Your task to perform on an android device: add a label to a message in the gmail app Image 0: 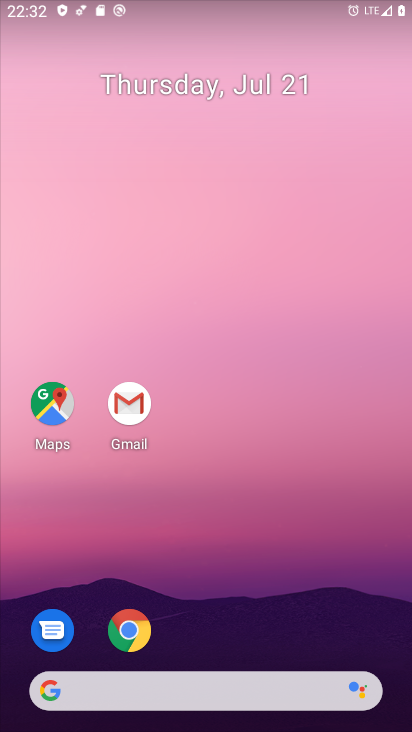
Step 0: drag from (212, 613) to (212, 221)
Your task to perform on an android device: add a label to a message in the gmail app Image 1: 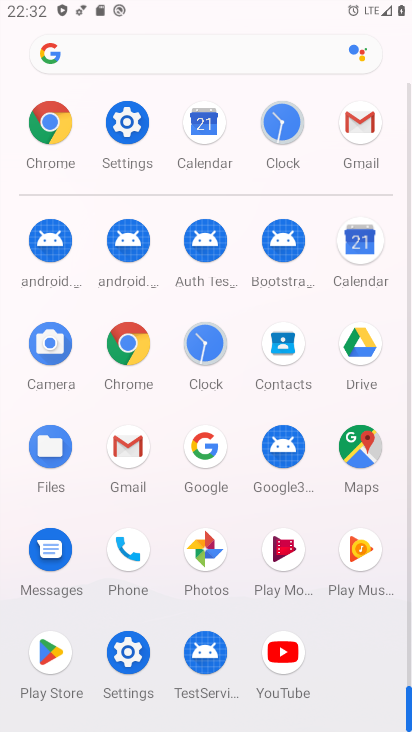
Step 1: click (123, 452)
Your task to perform on an android device: add a label to a message in the gmail app Image 2: 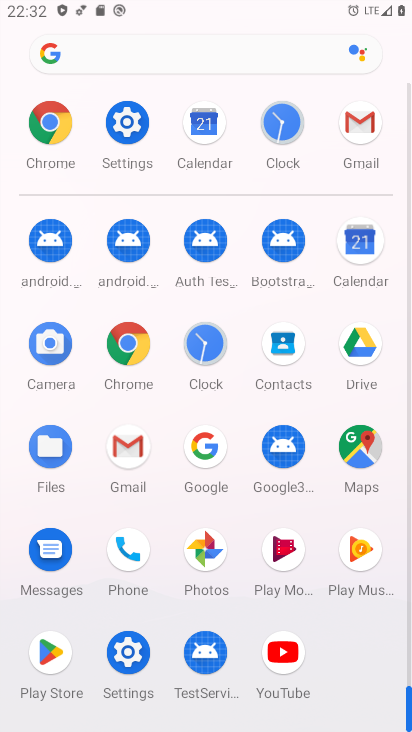
Step 2: click (128, 444)
Your task to perform on an android device: add a label to a message in the gmail app Image 3: 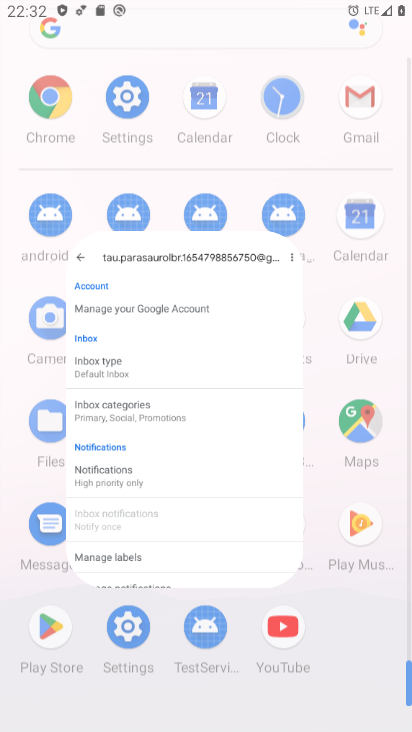
Step 3: click (128, 442)
Your task to perform on an android device: add a label to a message in the gmail app Image 4: 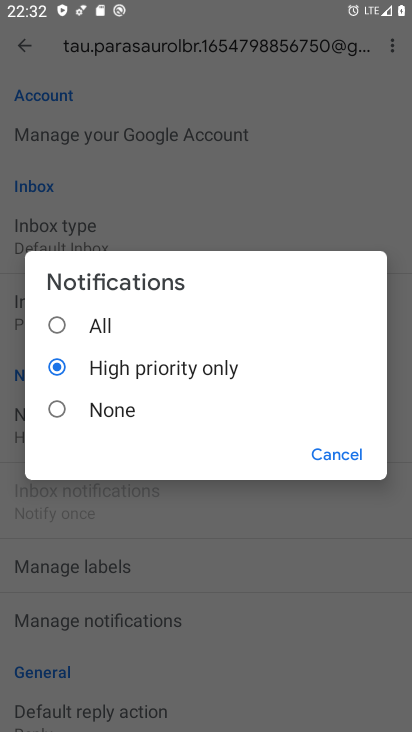
Step 4: click (327, 453)
Your task to perform on an android device: add a label to a message in the gmail app Image 5: 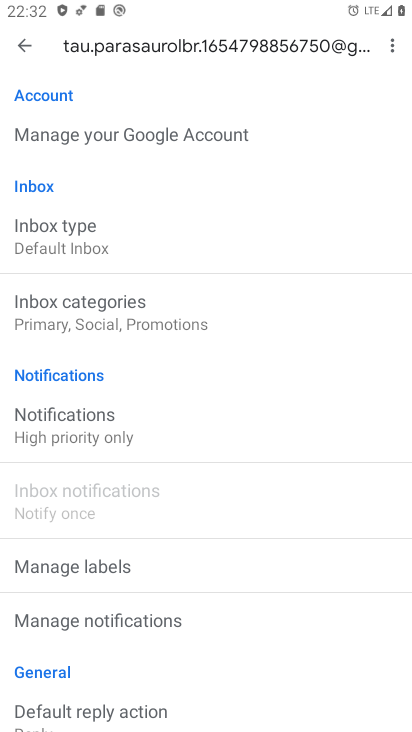
Step 5: click (20, 43)
Your task to perform on an android device: add a label to a message in the gmail app Image 6: 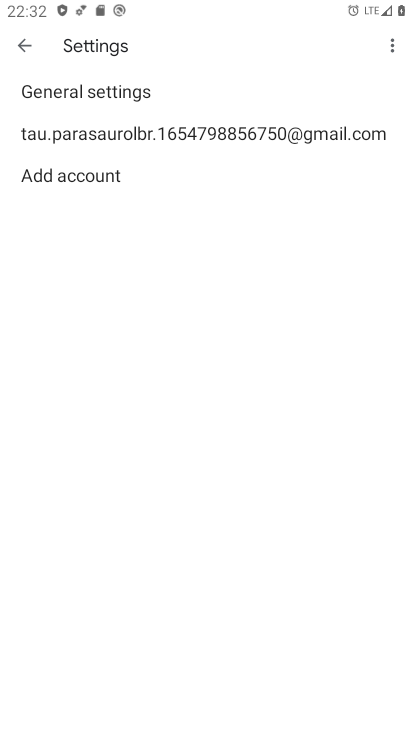
Step 6: click (21, 44)
Your task to perform on an android device: add a label to a message in the gmail app Image 7: 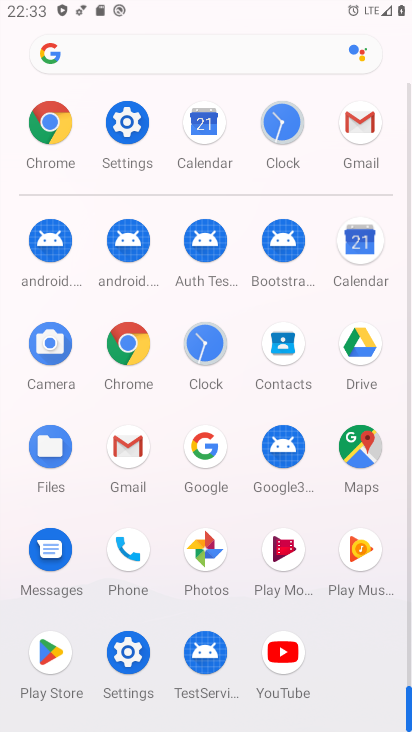
Step 7: click (207, 337)
Your task to perform on an android device: add a label to a message in the gmail app Image 8: 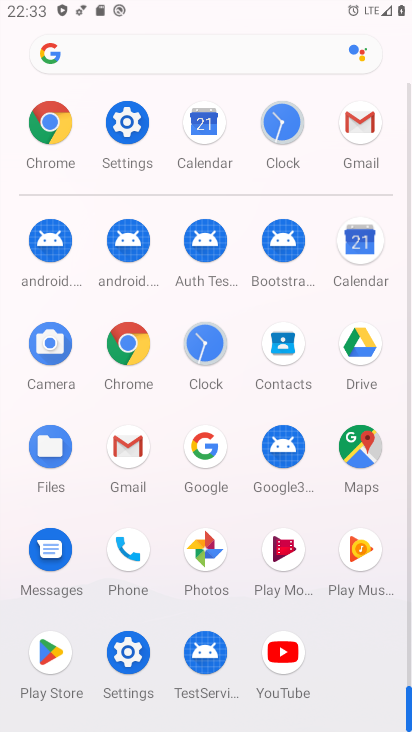
Step 8: click (207, 337)
Your task to perform on an android device: add a label to a message in the gmail app Image 9: 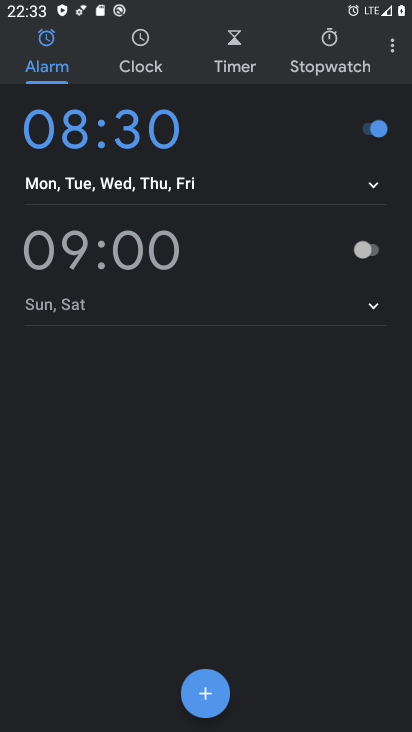
Step 9: press back button
Your task to perform on an android device: add a label to a message in the gmail app Image 10: 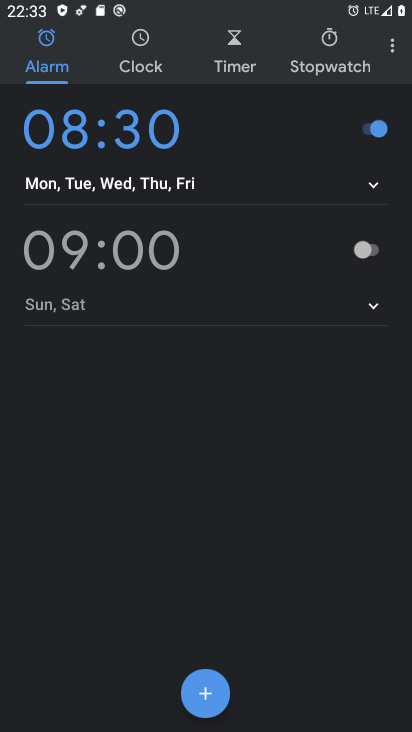
Step 10: press back button
Your task to perform on an android device: add a label to a message in the gmail app Image 11: 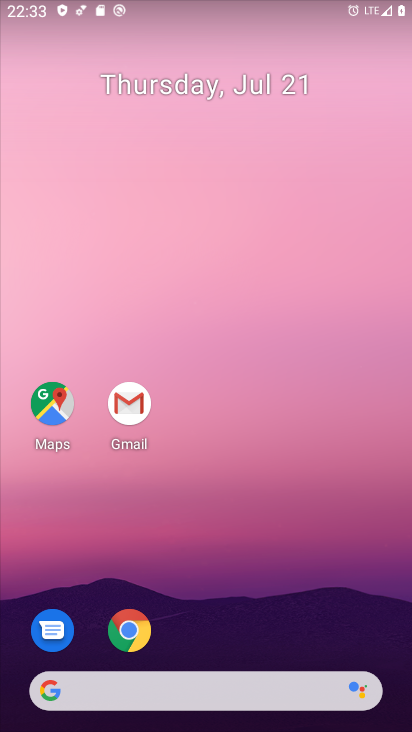
Step 11: drag from (204, 533) to (153, 202)
Your task to perform on an android device: add a label to a message in the gmail app Image 12: 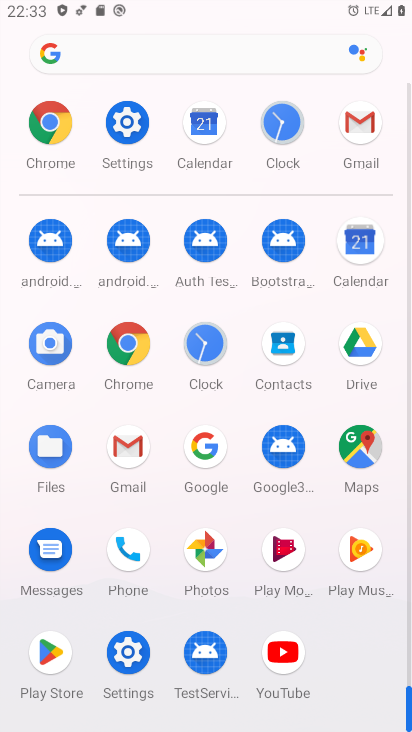
Step 12: click (133, 450)
Your task to perform on an android device: add a label to a message in the gmail app Image 13: 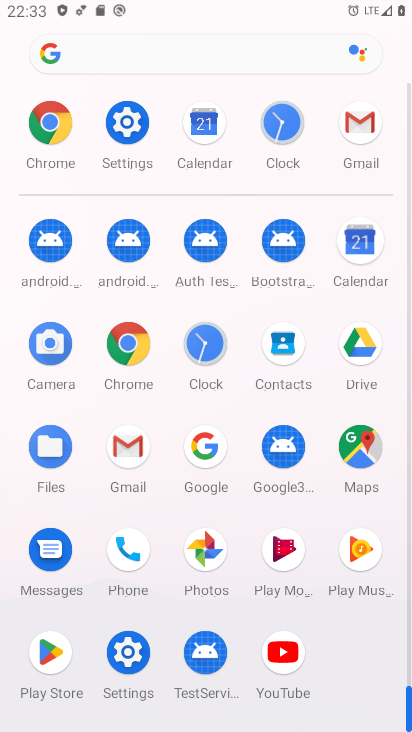
Step 13: click (133, 450)
Your task to perform on an android device: add a label to a message in the gmail app Image 14: 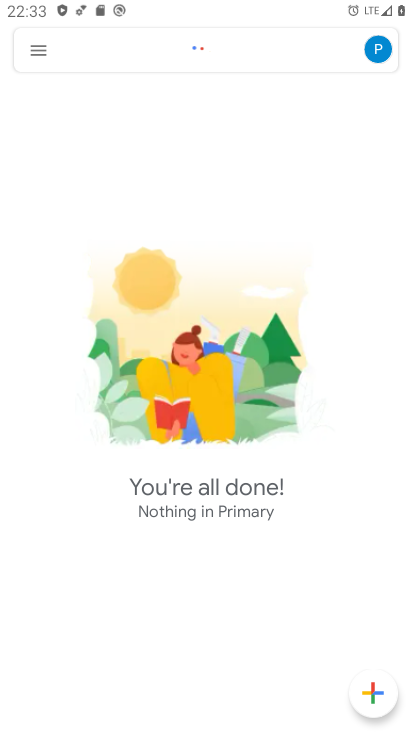
Step 14: click (37, 53)
Your task to perform on an android device: add a label to a message in the gmail app Image 15: 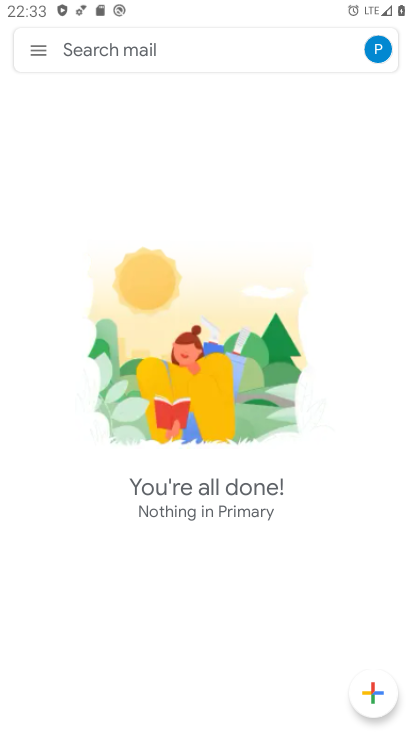
Step 15: click (49, 51)
Your task to perform on an android device: add a label to a message in the gmail app Image 16: 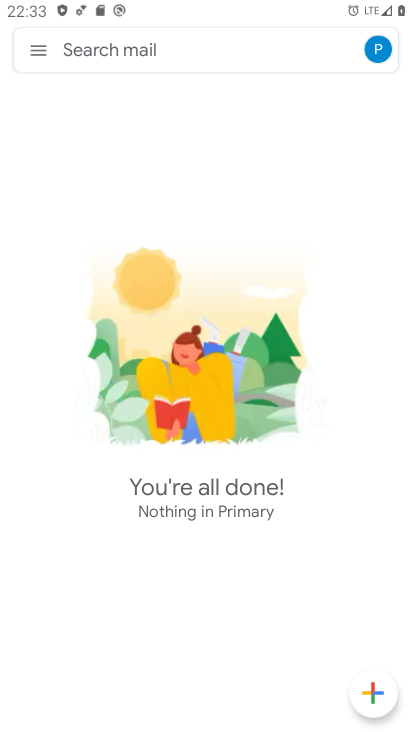
Step 16: click (48, 51)
Your task to perform on an android device: add a label to a message in the gmail app Image 17: 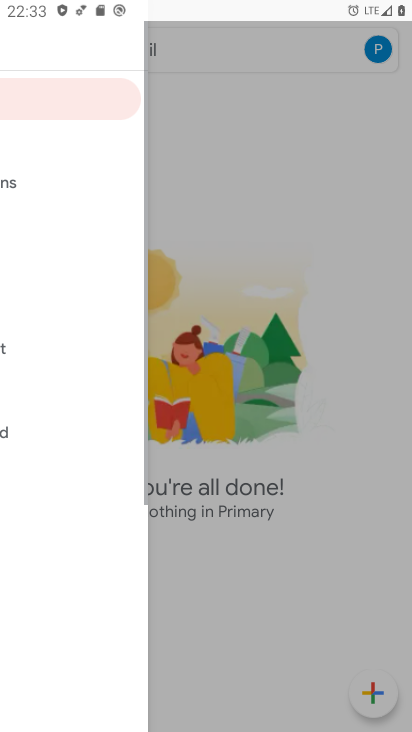
Step 17: drag from (47, 52) to (65, 553)
Your task to perform on an android device: add a label to a message in the gmail app Image 18: 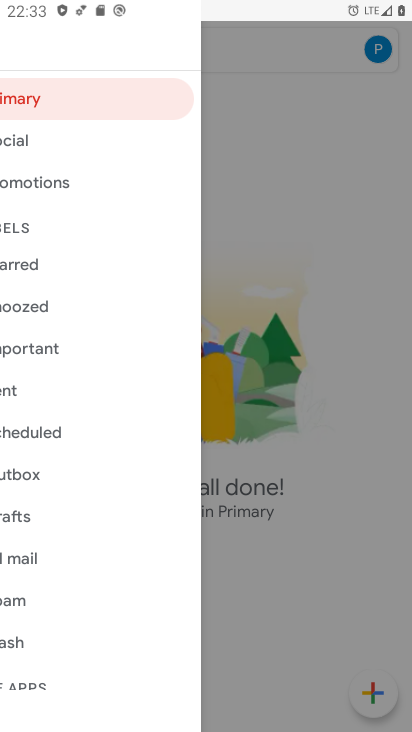
Step 18: click (65, 553)
Your task to perform on an android device: add a label to a message in the gmail app Image 19: 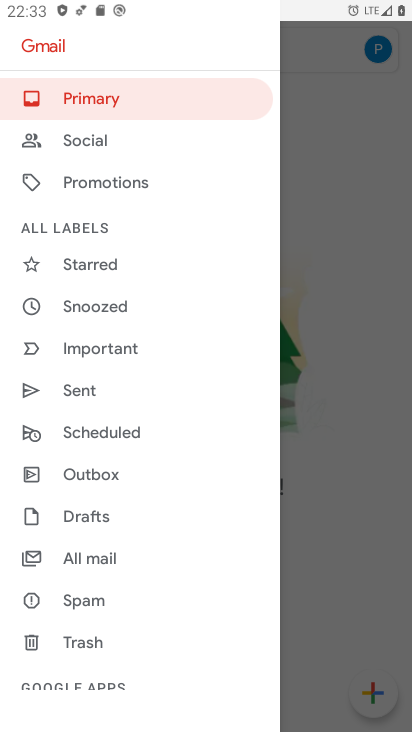
Step 19: click (44, 557)
Your task to perform on an android device: add a label to a message in the gmail app Image 20: 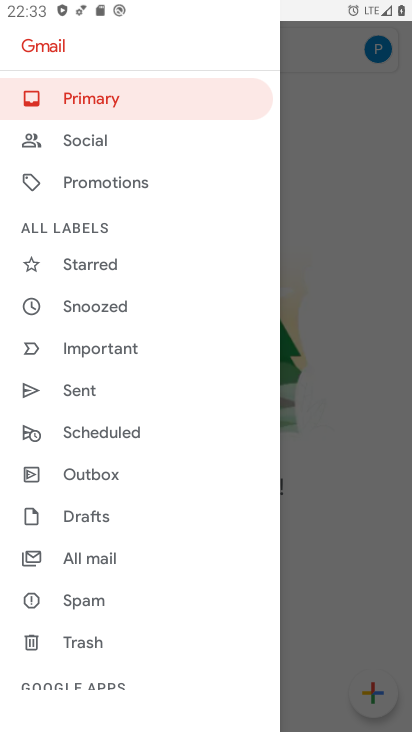
Step 20: click (46, 557)
Your task to perform on an android device: add a label to a message in the gmail app Image 21: 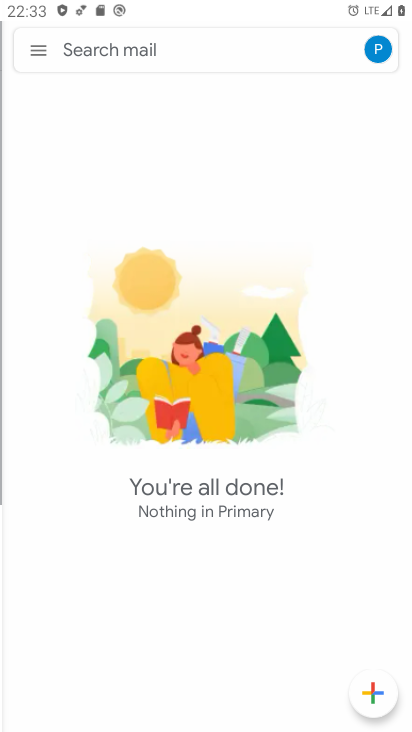
Step 21: click (70, 557)
Your task to perform on an android device: add a label to a message in the gmail app Image 22: 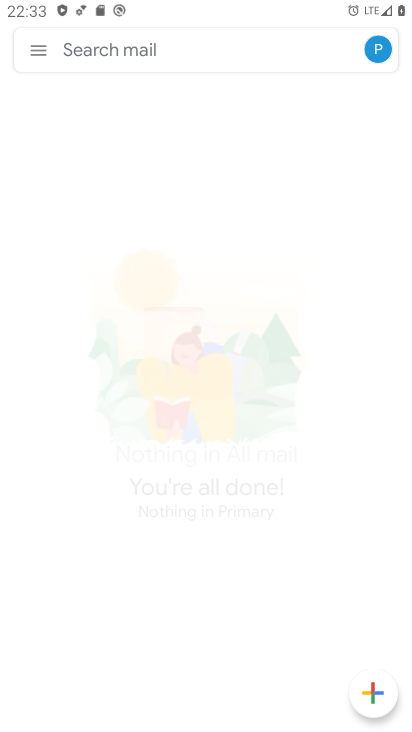
Step 22: click (73, 559)
Your task to perform on an android device: add a label to a message in the gmail app Image 23: 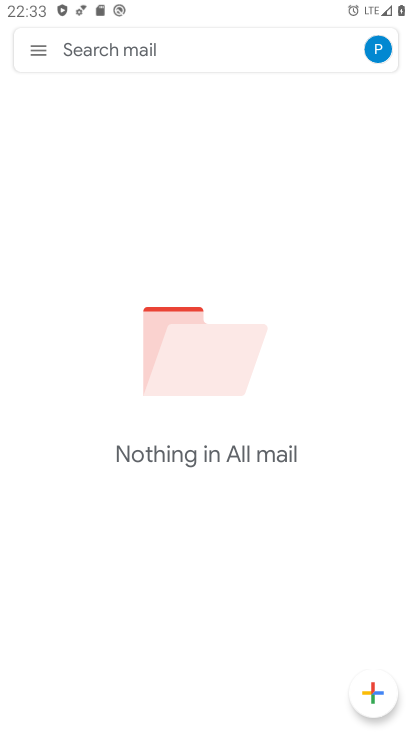
Step 23: task complete